Your task to perform on an android device: Open Google Chrome and open the bookmarks view Image 0: 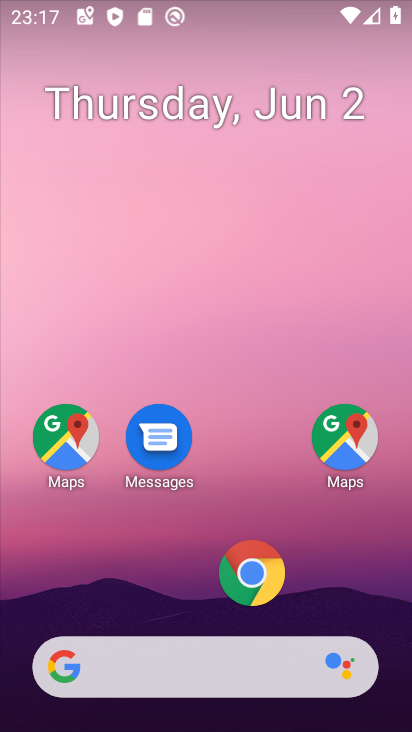
Step 0: click (242, 576)
Your task to perform on an android device: Open Google Chrome and open the bookmarks view Image 1: 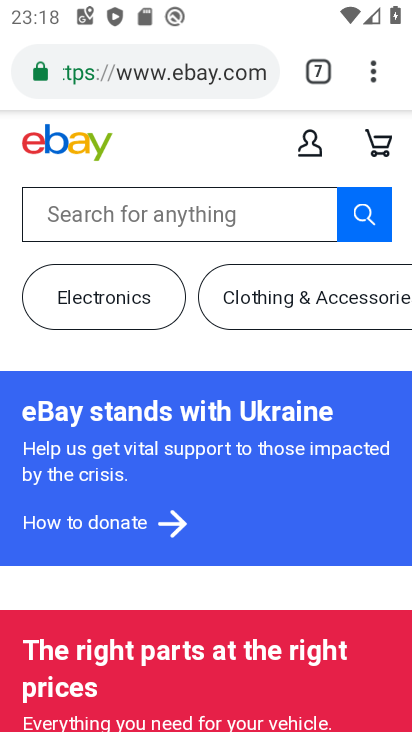
Step 1: click (383, 68)
Your task to perform on an android device: Open Google Chrome and open the bookmarks view Image 2: 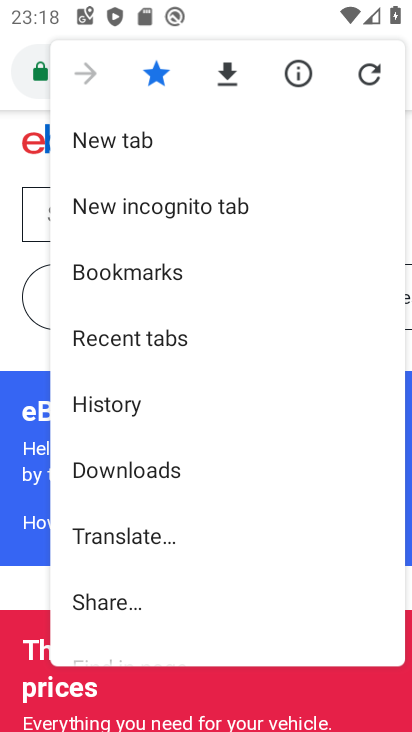
Step 2: click (162, 281)
Your task to perform on an android device: Open Google Chrome and open the bookmarks view Image 3: 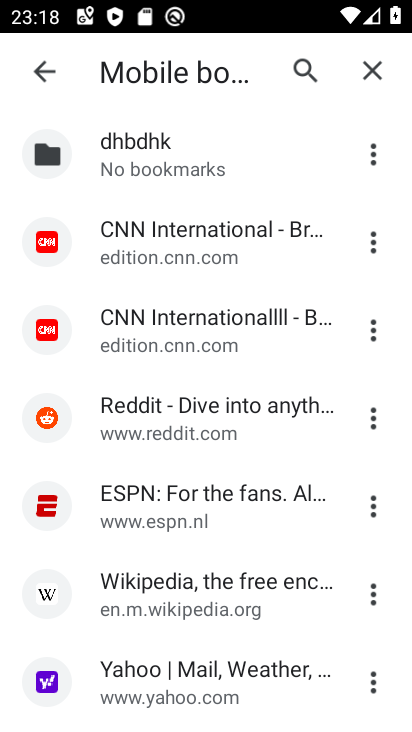
Step 3: task complete